Your task to perform on an android device: Show me recent news Image 0: 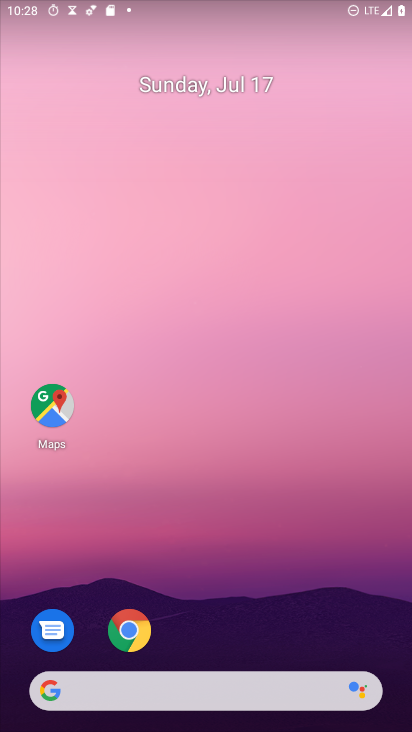
Step 0: drag from (173, 700) to (164, 0)
Your task to perform on an android device: Show me recent news Image 1: 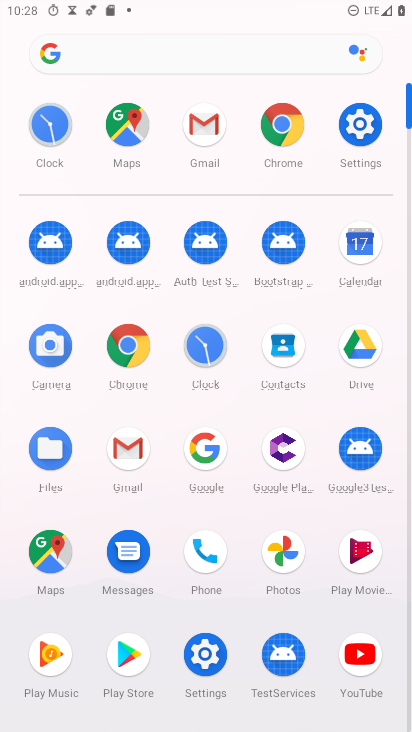
Step 1: click (133, 347)
Your task to perform on an android device: Show me recent news Image 2: 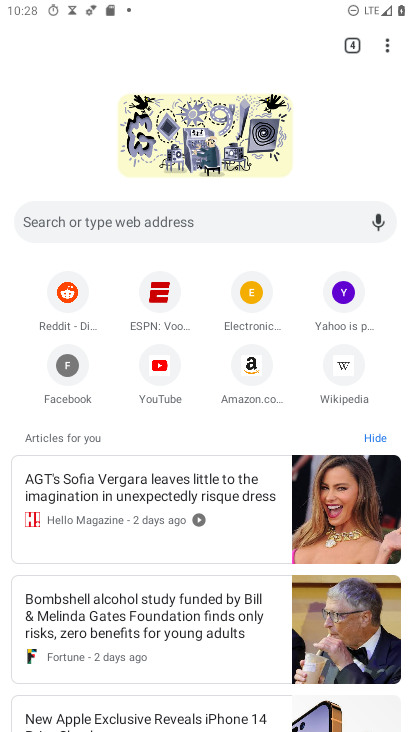
Step 2: click (217, 215)
Your task to perform on an android device: Show me recent news Image 3: 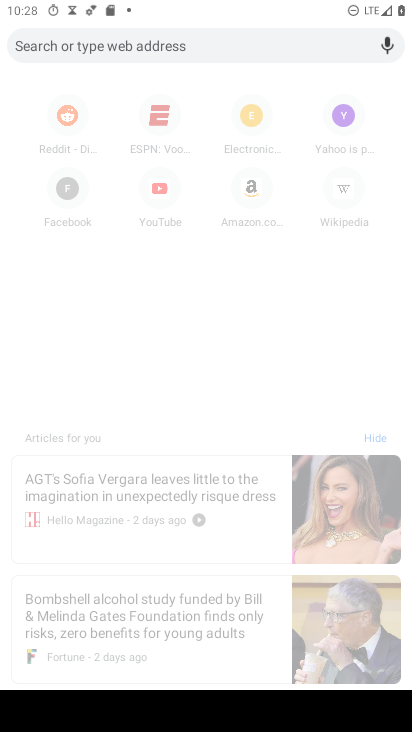
Step 3: type "show me recent news"
Your task to perform on an android device: Show me recent news Image 4: 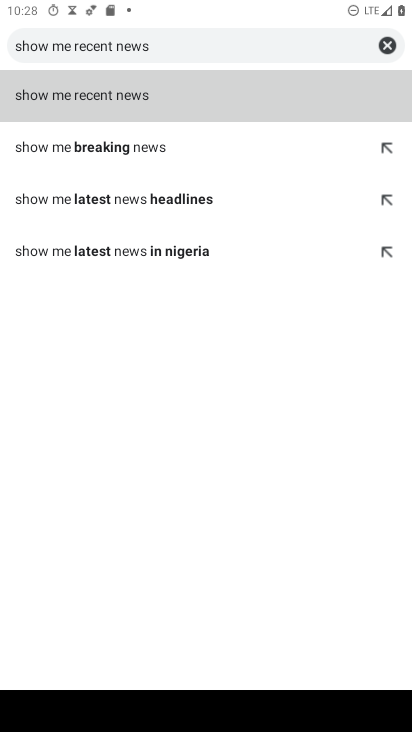
Step 4: click (199, 100)
Your task to perform on an android device: Show me recent news Image 5: 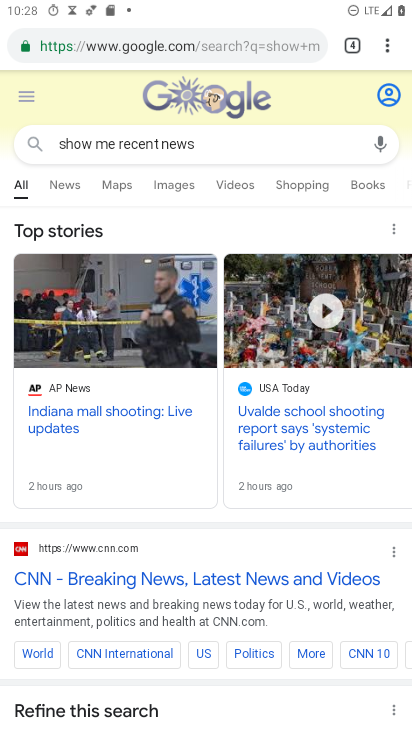
Step 5: task complete